Your task to perform on an android device: Open eBay Image 0: 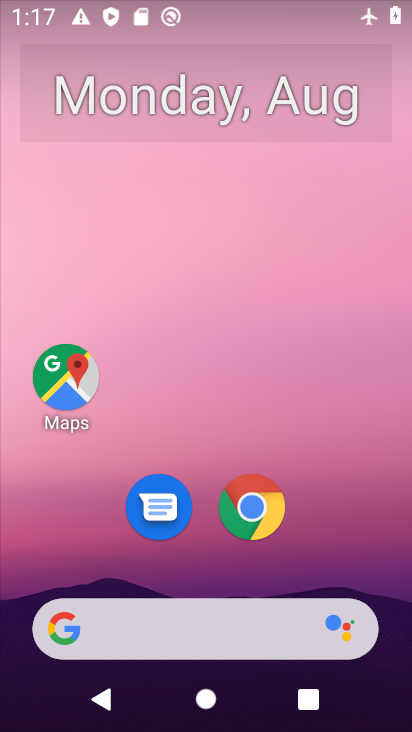
Step 0: press home button
Your task to perform on an android device: Open eBay Image 1: 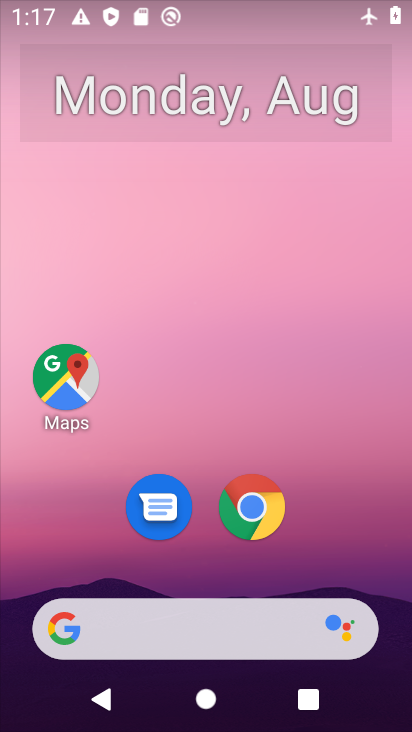
Step 1: press home button
Your task to perform on an android device: Open eBay Image 2: 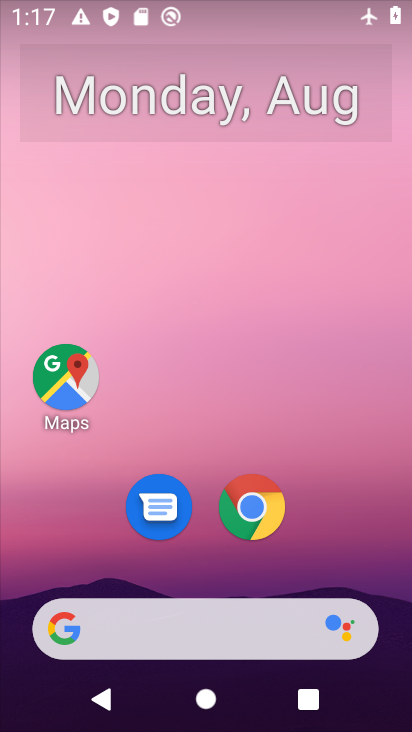
Step 2: click (251, 503)
Your task to perform on an android device: Open eBay Image 3: 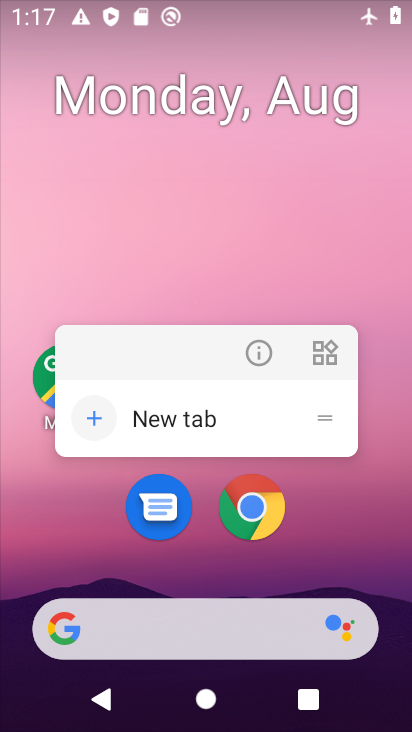
Step 3: click (333, 509)
Your task to perform on an android device: Open eBay Image 4: 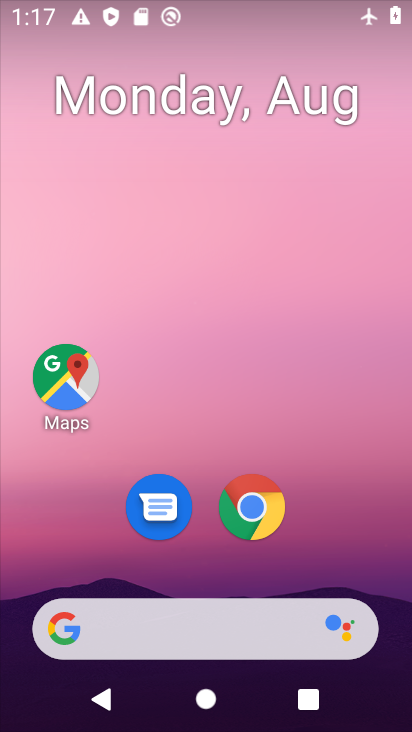
Step 4: drag from (332, 574) to (398, 131)
Your task to perform on an android device: Open eBay Image 5: 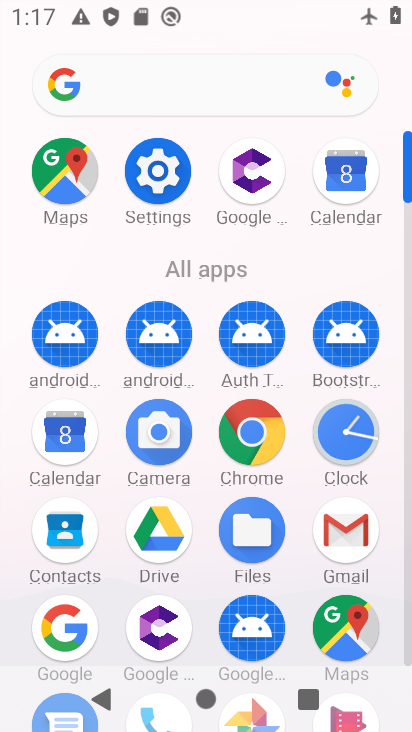
Step 5: click (252, 429)
Your task to perform on an android device: Open eBay Image 6: 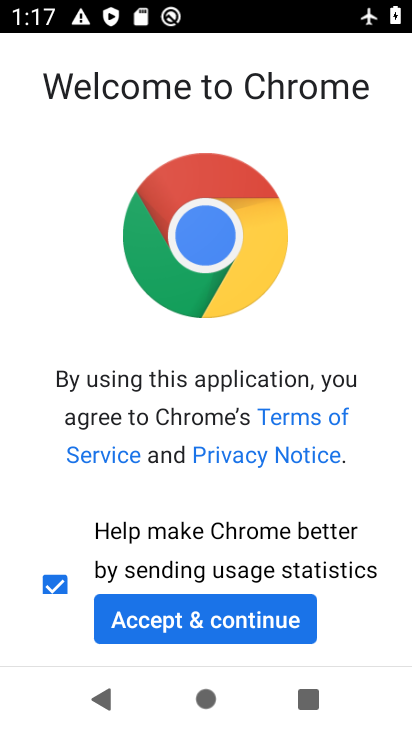
Step 6: click (196, 617)
Your task to perform on an android device: Open eBay Image 7: 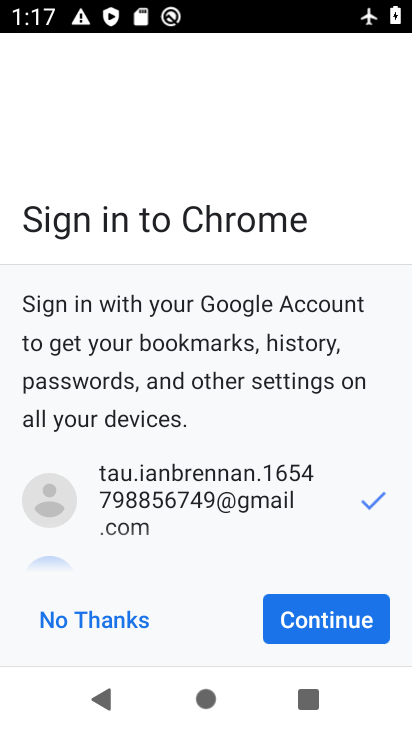
Step 7: click (327, 622)
Your task to perform on an android device: Open eBay Image 8: 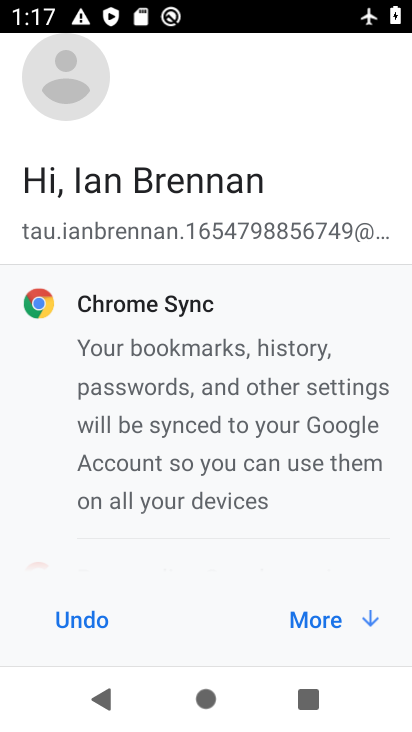
Step 8: click (336, 625)
Your task to perform on an android device: Open eBay Image 9: 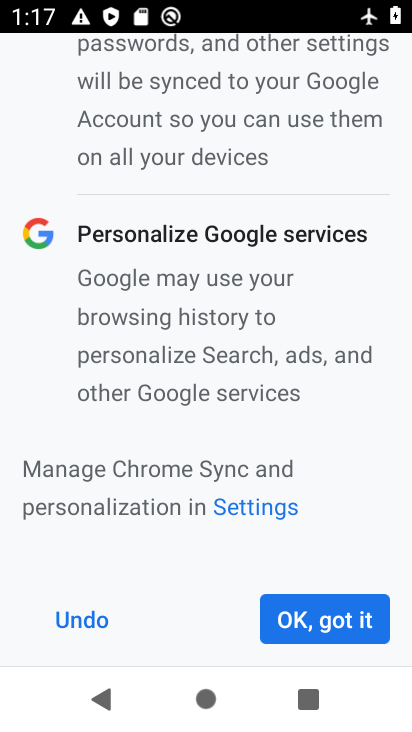
Step 9: click (336, 625)
Your task to perform on an android device: Open eBay Image 10: 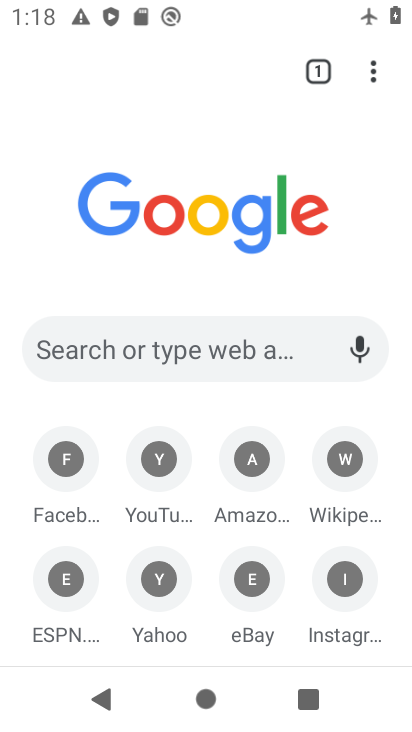
Step 10: click (248, 587)
Your task to perform on an android device: Open eBay Image 11: 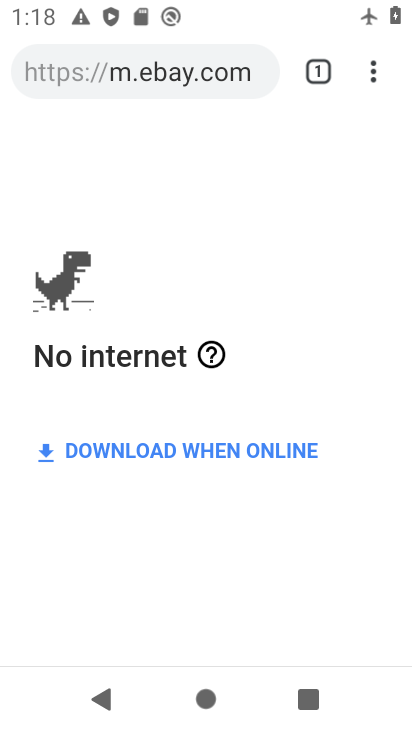
Step 11: task complete